Your task to perform on an android device: toggle wifi Image 0: 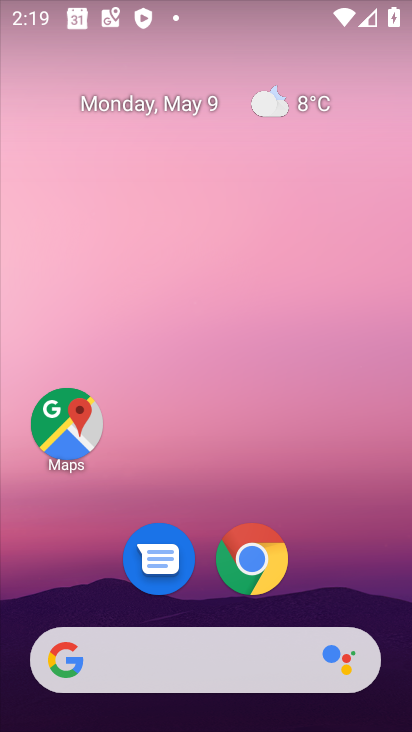
Step 0: click (338, 566)
Your task to perform on an android device: toggle wifi Image 1: 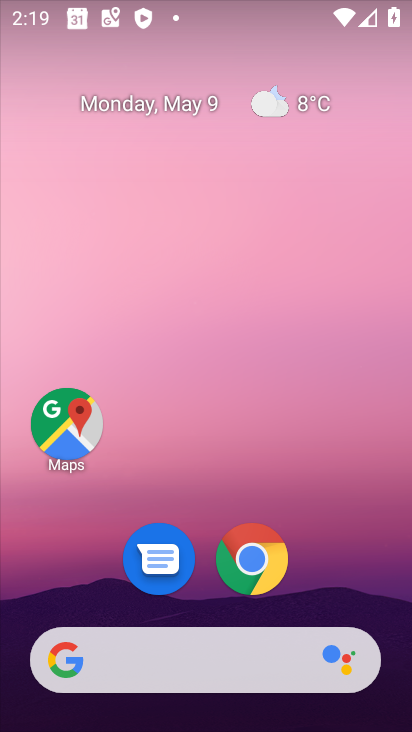
Step 1: drag from (338, 566) to (265, 0)
Your task to perform on an android device: toggle wifi Image 2: 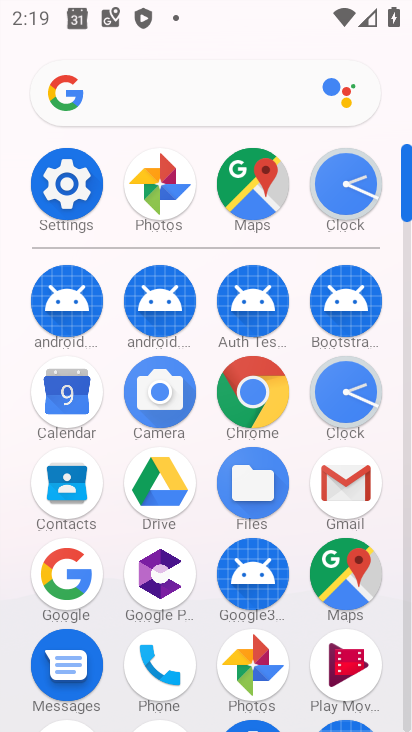
Step 2: click (58, 189)
Your task to perform on an android device: toggle wifi Image 3: 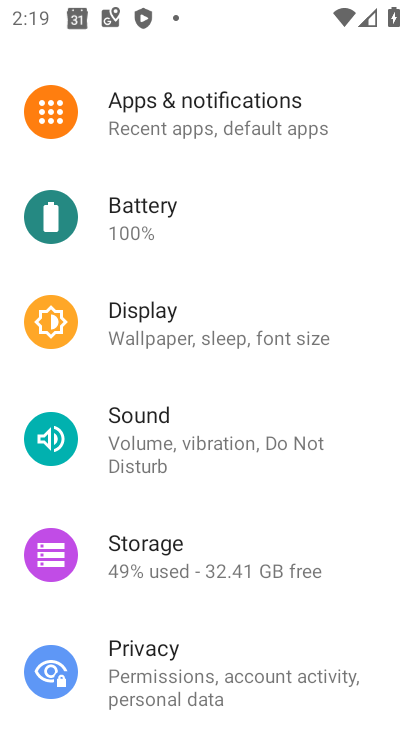
Step 3: drag from (217, 173) to (206, 683)
Your task to perform on an android device: toggle wifi Image 4: 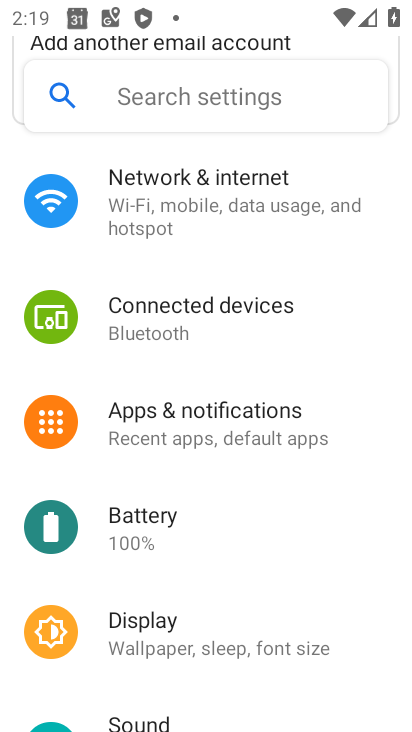
Step 4: click (206, 202)
Your task to perform on an android device: toggle wifi Image 5: 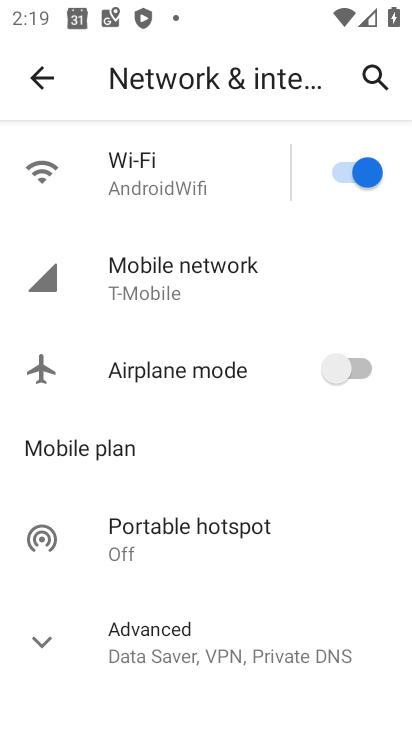
Step 5: click (351, 172)
Your task to perform on an android device: toggle wifi Image 6: 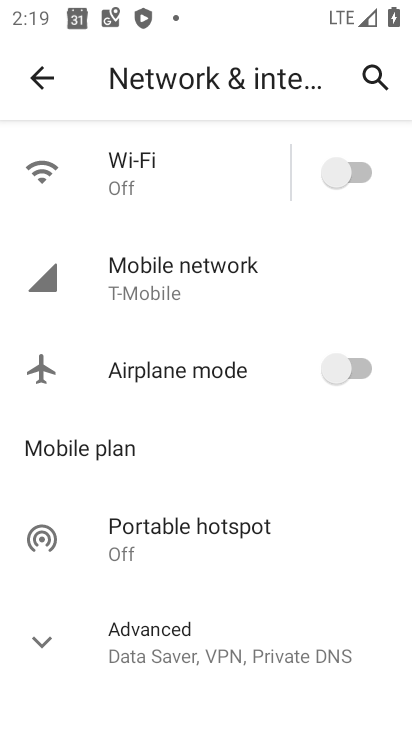
Step 6: task complete